Your task to perform on an android device: check battery use Image 0: 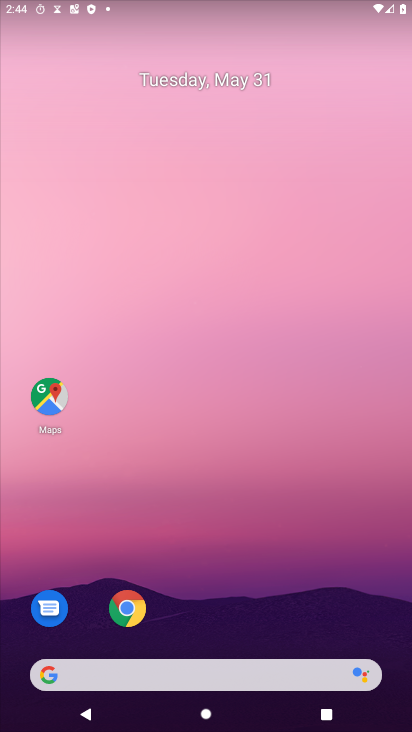
Step 0: drag from (208, 640) to (185, 10)
Your task to perform on an android device: check battery use Image 1: 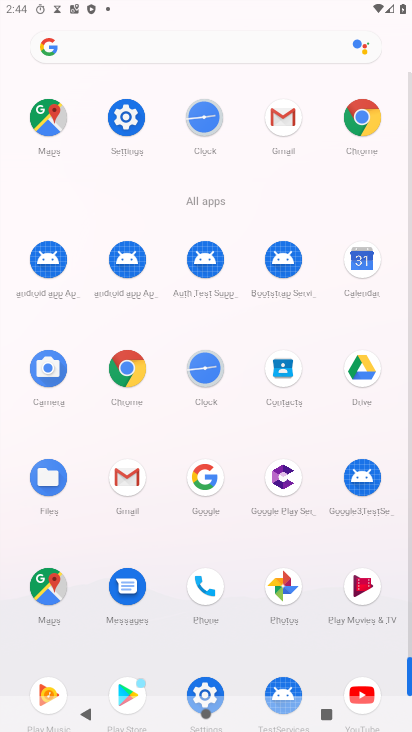
Step 1: click (122, 122)
Your task to perform on an android device: check battery use Image 2: 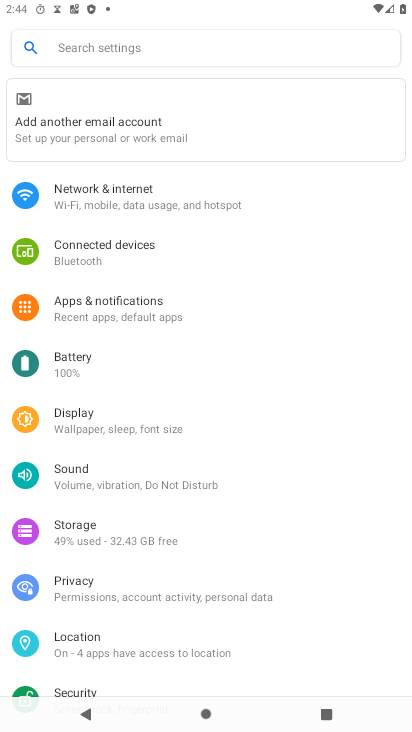
Step 2: click (105, 370)
Your task to perform on an android device: check battery use Image 3: 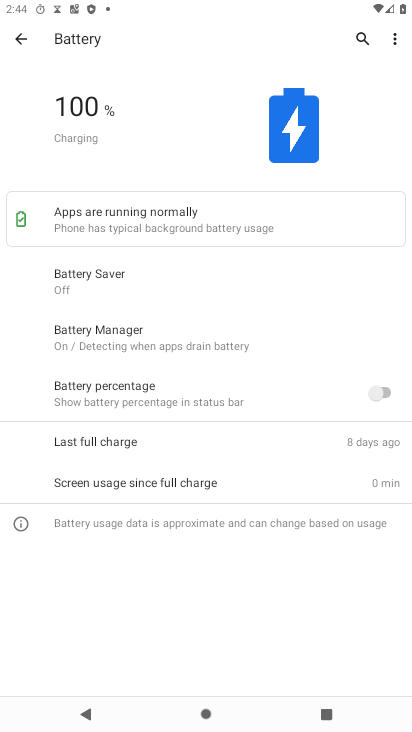
Step 3: click (396, 38)
Your task to perform on an android device: check battery use Image 4: 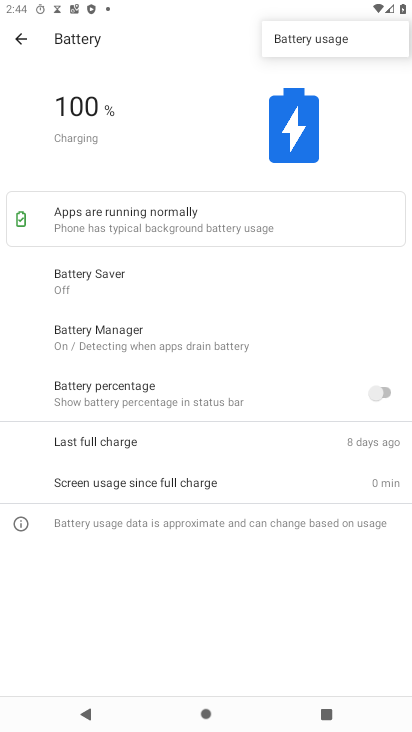
Step 4: click (337, 41)
Your task to perform on an android device: check battery use Image 5: 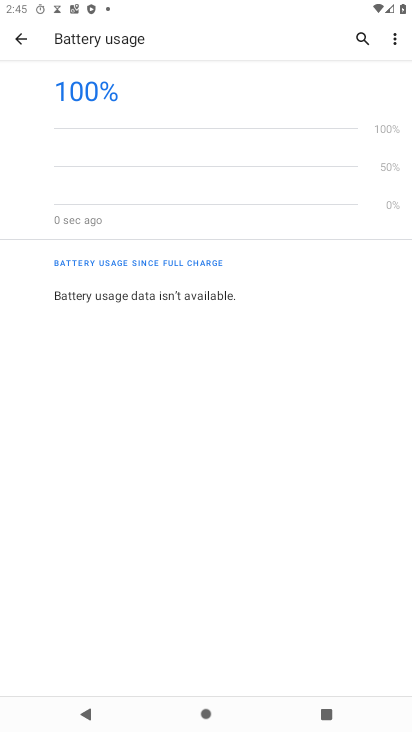
Step 5: task complete